Your task to perform on an android device: open a new tab in the chrome app Image 0: 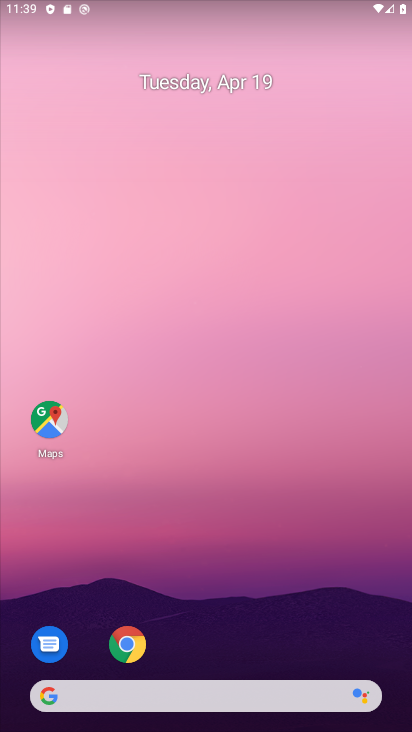
Step 0: drag from (331, 646) to (346, 42)
Your task to perform on an android device: open a new tab in the chrome app Image 1: 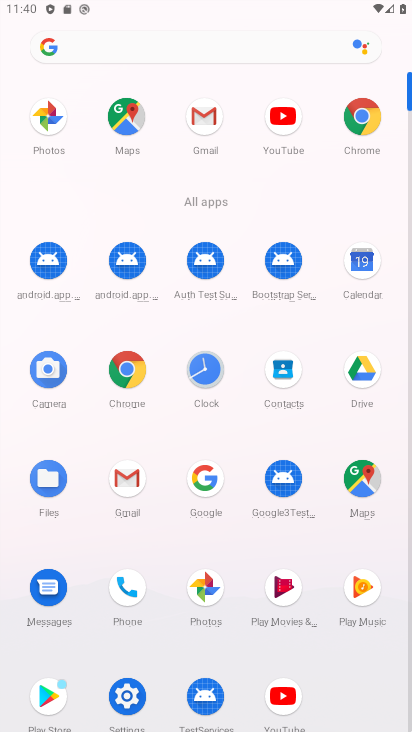
Step 1: click (127, 368)
Your task to perform on an android device: open a new tab in the chrome app Image 2: 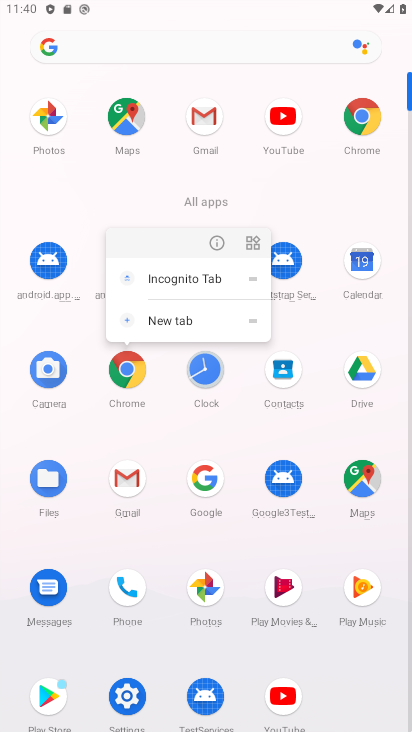
Step 2: click (127, 370)
Your task to perform on an android device: open a new tab in the chrome app Image 3: 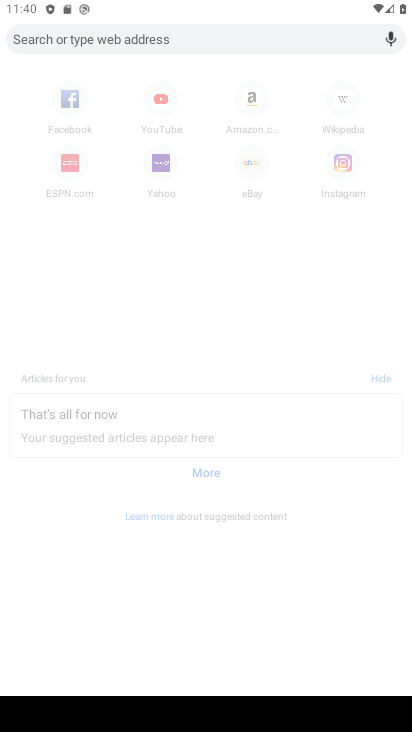
Step 3: press back button
Your task to perform on an android device: open a new tab in the chrome app Image 4: 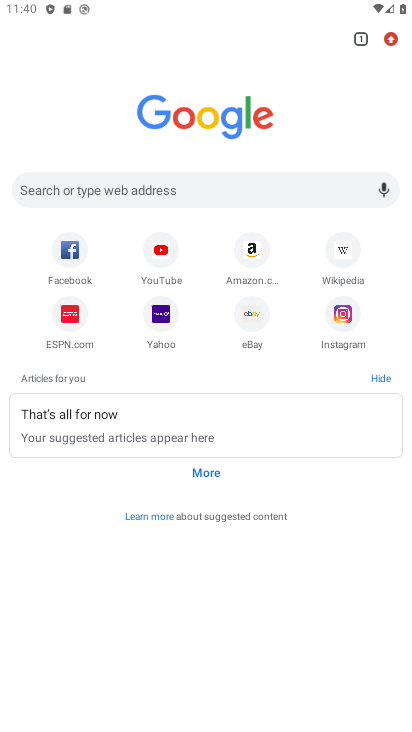
Step 4: click (389, 41)
Your task to perform on an android device: open a new tab in the chrome app Image 5: 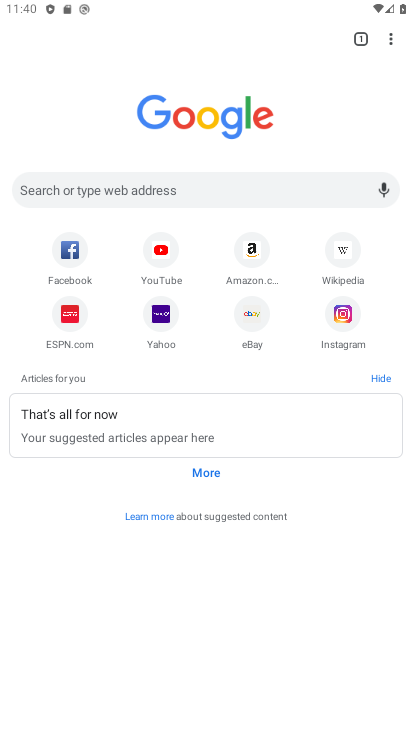
Step 5: click (389, 38)
Your task to perform on an android device: open a new tab in the chrome app Image 6: 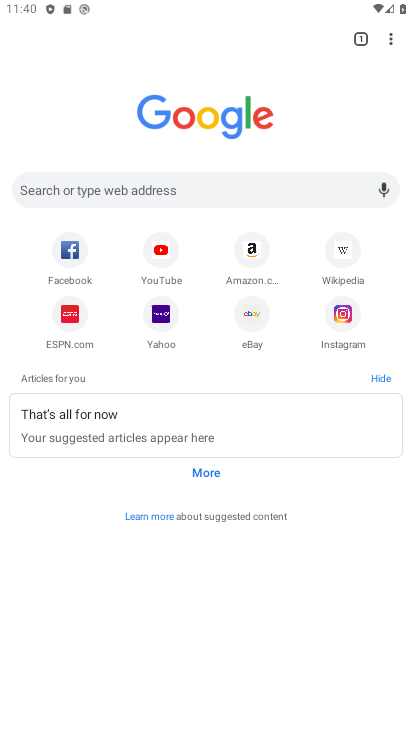
Step 6: task complete